Your task to perform on an android device: see sites visited before in the chrome app Image 0: 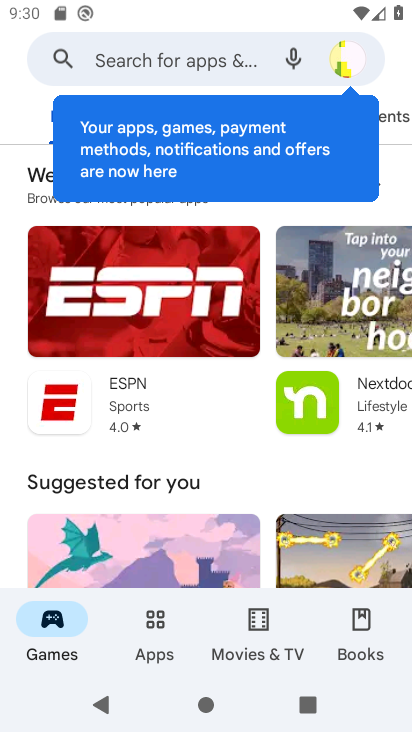
Step 0: press home button
Your task to perform on an android device: see sites visited before in the chrome app Image 1: 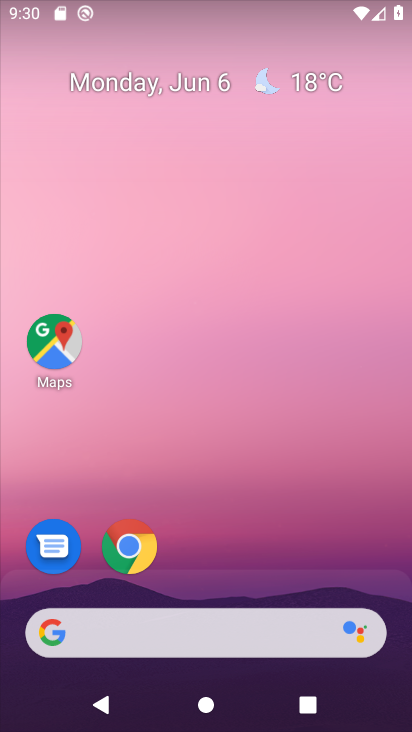
Step 1: click (127, 549)
Your task to perform on an android device: see sites visited before in the chrome app Image 2: 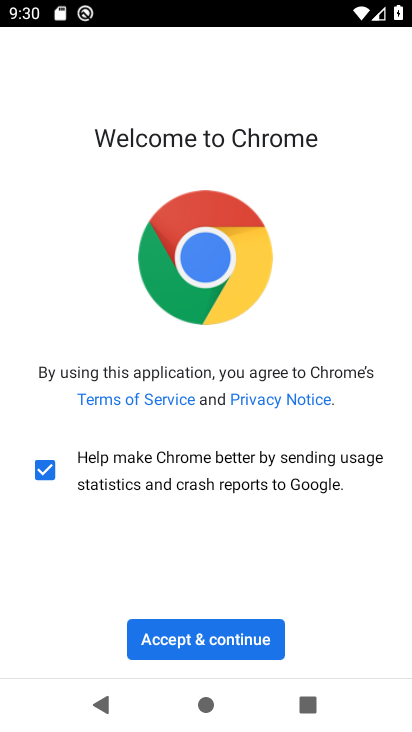
Step 2: click (198, 634)
Your task to perform on an android device: see sites visited before in the chrome app Image 3: 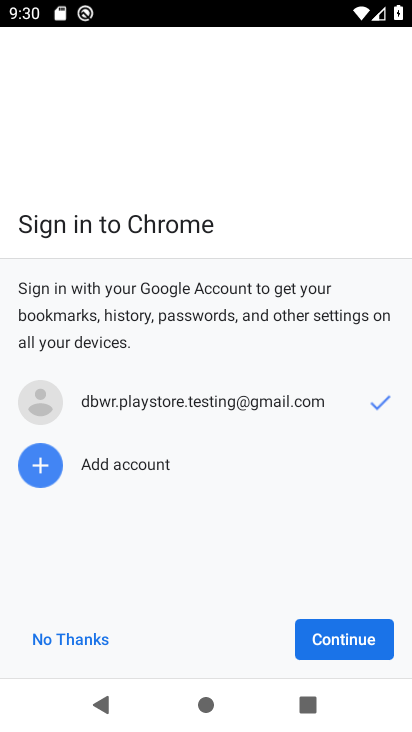
Step 3: click (366, 629)
Your task to perform on an android device: see sites visited before in the chrome app Image 4: 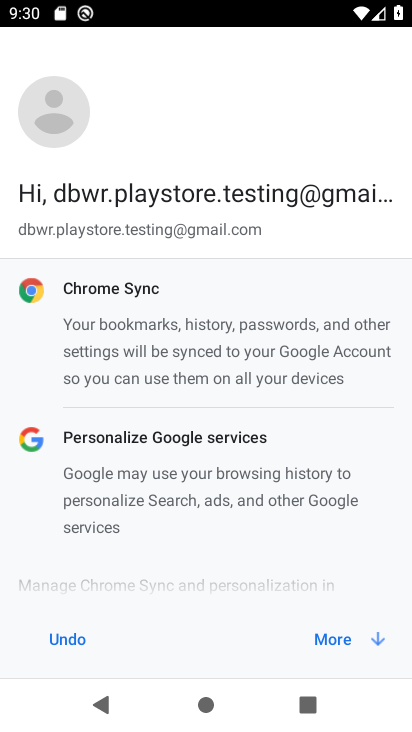
Step 4: click (366, 629)
Your task to perform on an android device: see sites visited before in the chrome app Image 5: 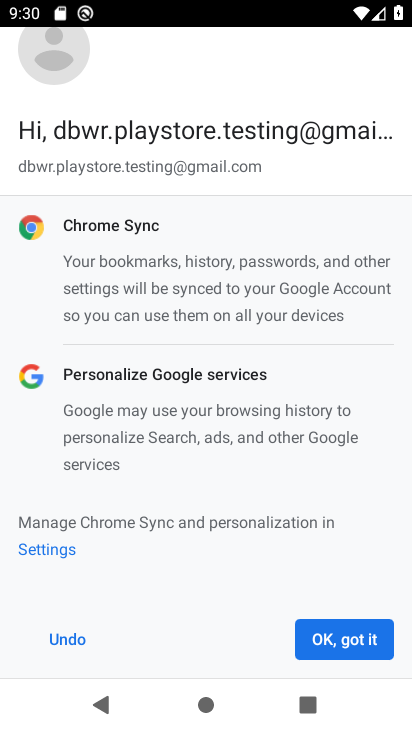
Step 5: click (366, 629)
Your task to perform on an android device: see sites visited before in the chrome app Image 6: 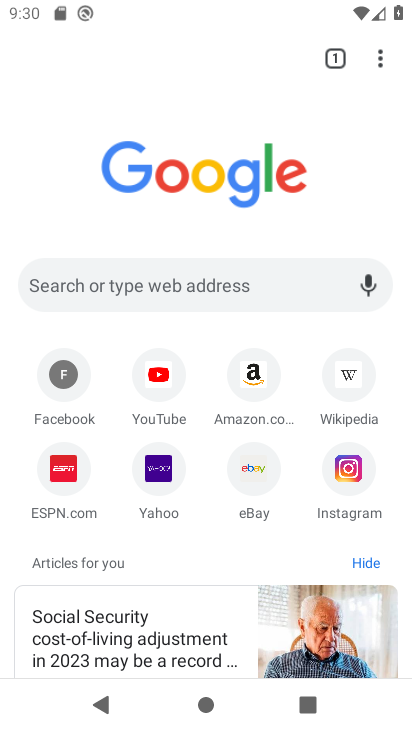
Step 6: click (378, 63)
Your task to perform on an android device: see sites visited before in the chrome app Image 7: 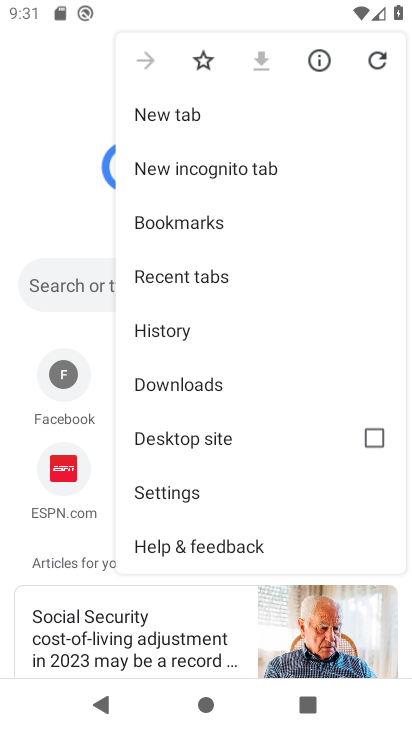
Step 7: click (171, 325)
Your task to perform on an android device: see sites visited before in the chrome app Image 8: 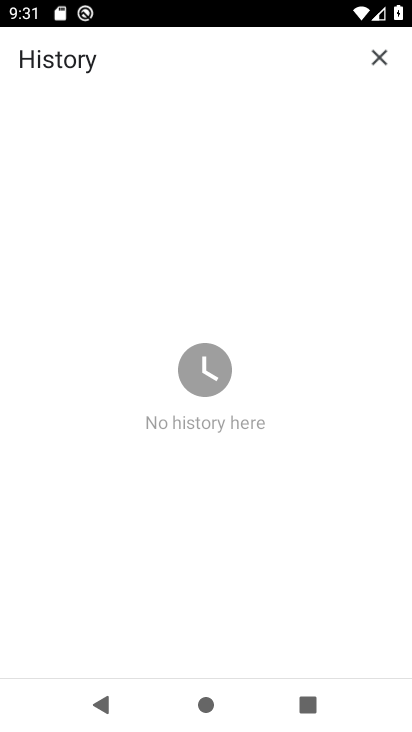
Step 8: task complete